Your task to perform on an android device: turn on improve location accuracy Image 0: 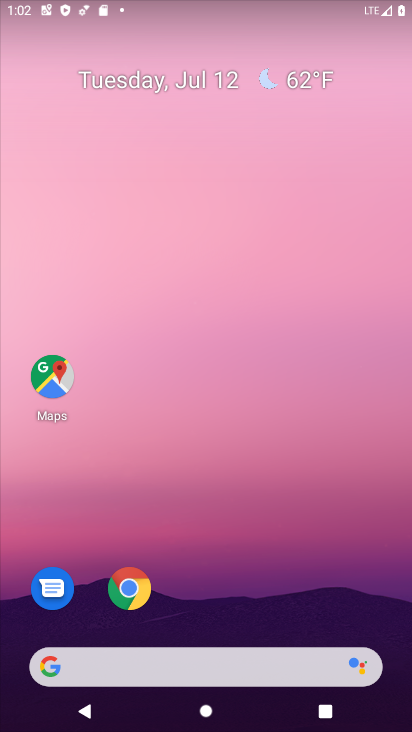
Step 0: drag from (240, 641) to (209, 236)
Your task to perform on an android device: turn on improve location accuracy Image 1: 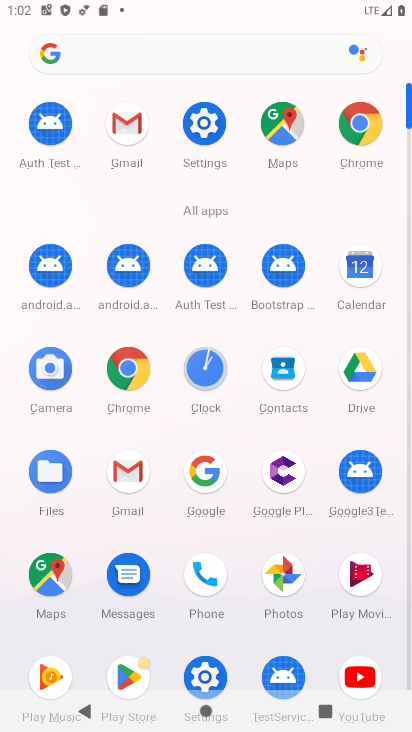
Step 1: click (213, 127)
Your task to perform on an android device: turn on improve location accuracy Image 2: 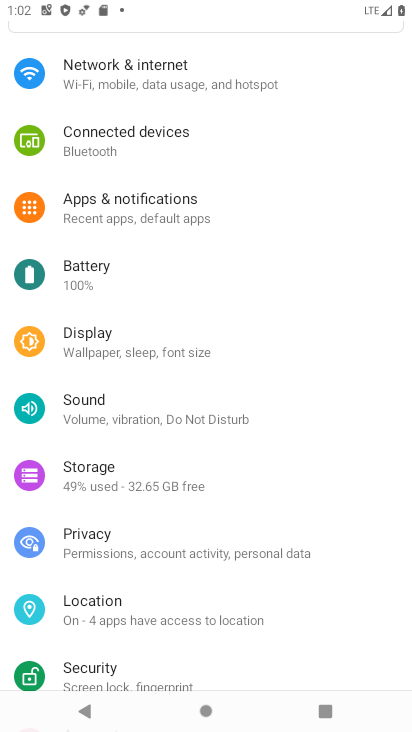
Step 2: click (131, 604)
Your task to perform on an android device: turn on improve location accuracy Image 3: 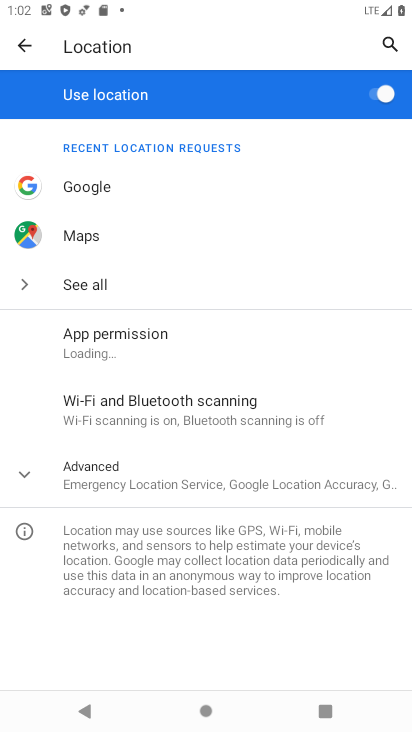
Step 3: click (210, 485)
Your task to perform on an android device: turn on improve location accuracy Image 4: 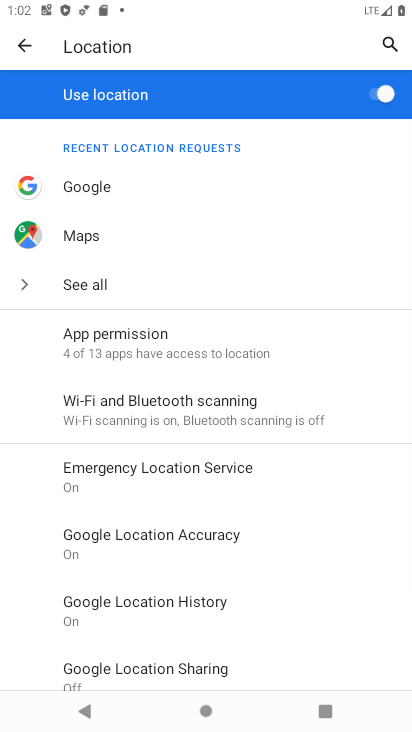
Step 4: click (219, 536)
Your task to perform on an android device: turn on improve location accuracy Image 5: 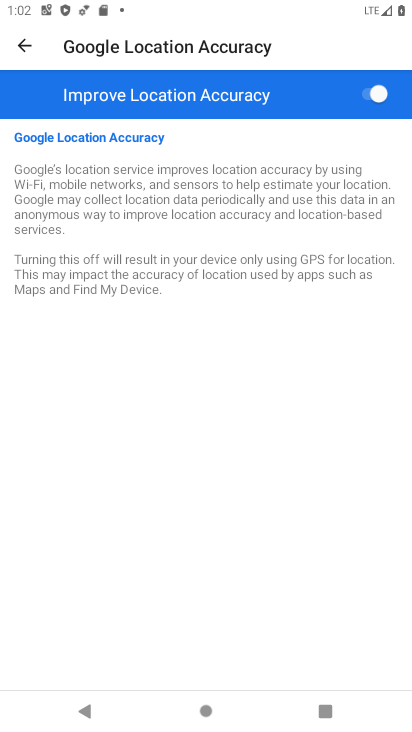
Step 5: task complete